Your task to perform on an android device: Go to notification settings Image 0: 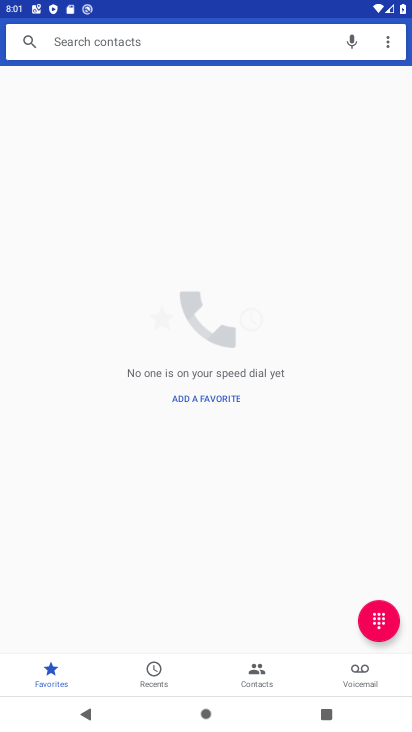
Step 0: press back button
Your task to perform on an android device: Go to notification settings Image 1: 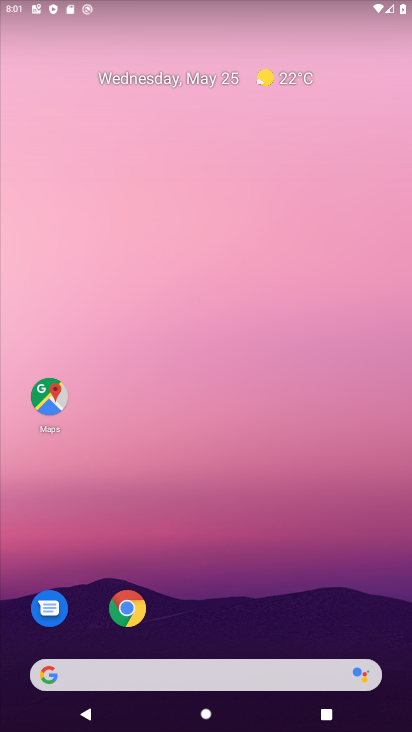
Step 1: drag from (232, 602) to (235, 77)
Your task to perform on an android device: Go to notification settings Image 2: 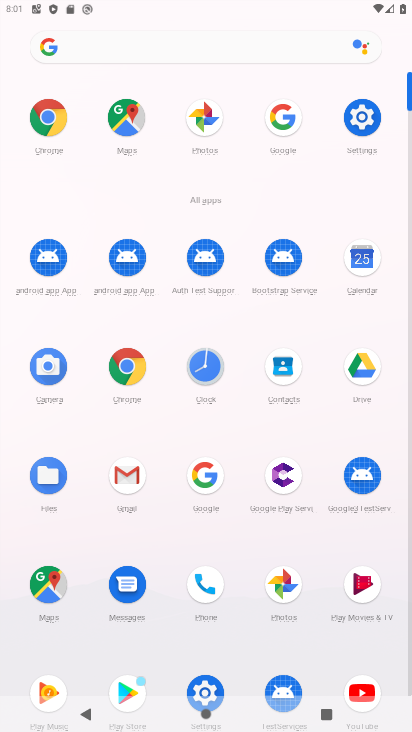
Step 2: click (362, 115)
Your task to perform on an android device: Go to notification settings Image 3: 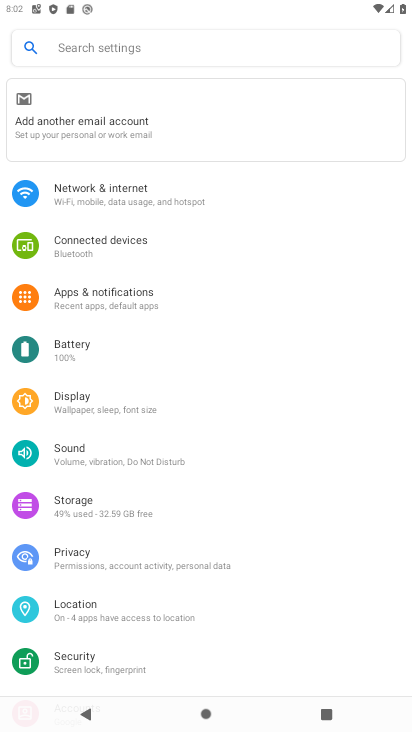
Step 3: click (106, 304)
Your task to perform on an android device: Go to notification settings Image 4: 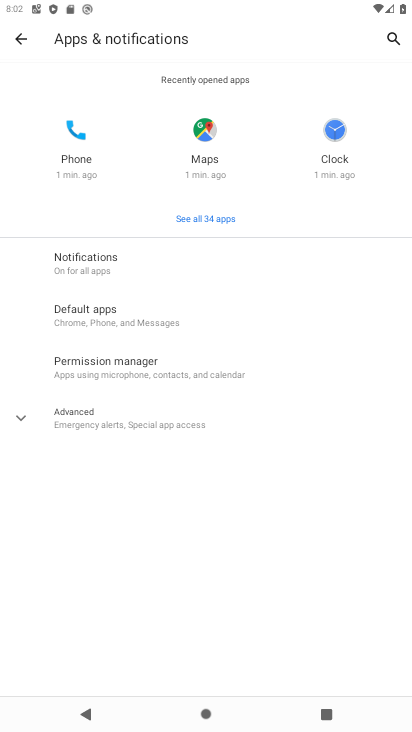
Step 4: click (81, 263)
Your task to perform on an android device: Go to notification settings Image 5: 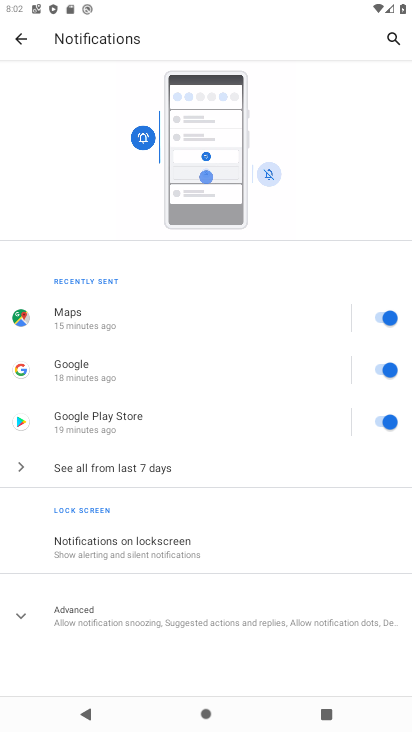
Step 5: task complete